Your task to perform on an android device: turn off wifi Image 0: 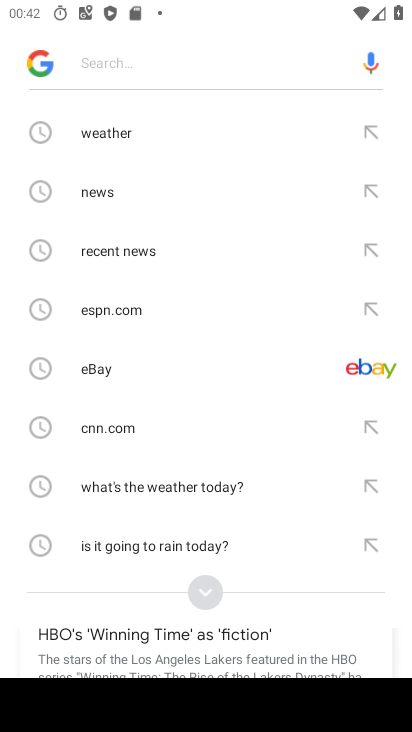
Step 0: press home button
Your task to perform on an android device: turn off wifi Image 1: 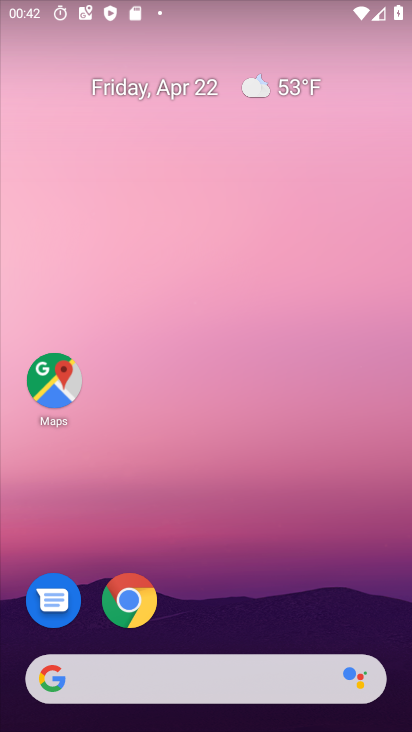
Step 1: drag from (204, 523) to (238, 141)
Your task to perform on an android device: turn off wifi Image 2: 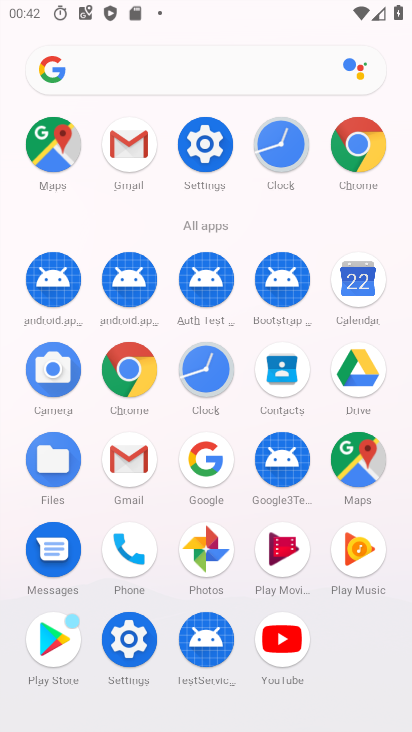
Step 2: click (207, 140)
Your task to perform on an android device: turn off wifi Image 3: 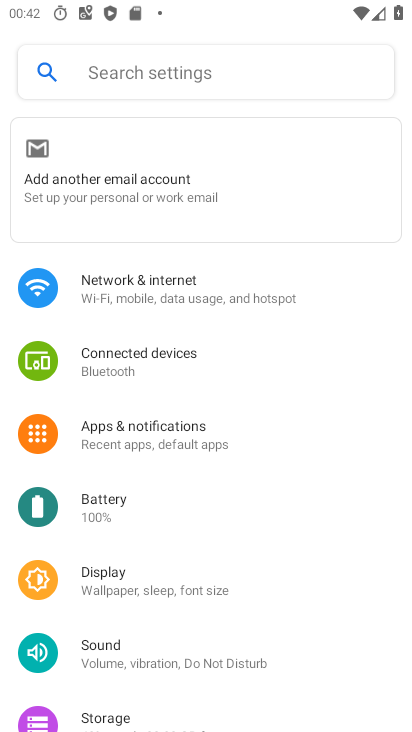
Step 3: click (210, 290)
Your task to perform on an android device: turn off wifi Image 4: 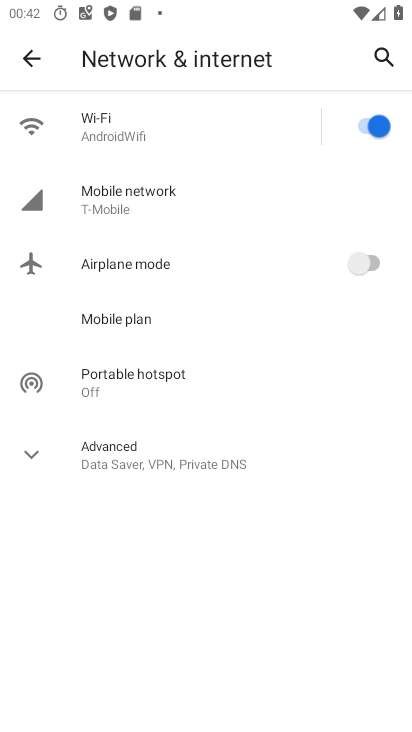
Step 4: click (362, 120)
Your task to perform on an android device: turn off wifi Image 5: 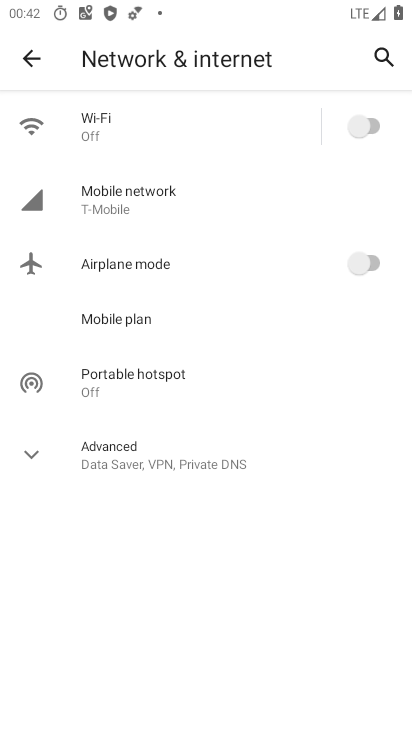
Step 5: task complete